Your task to perform on an android device: Open calendar and show me the fourth week of next month Image 0: 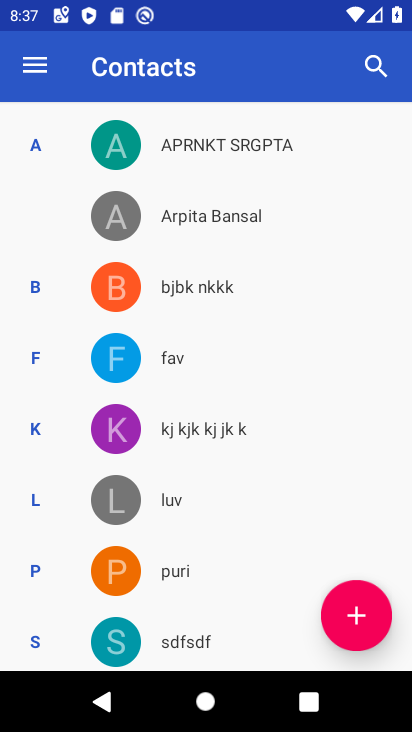
Step 0: press home button
Your task to perform on an android device: Open calendar and show me the fourth week of next month Image 1: 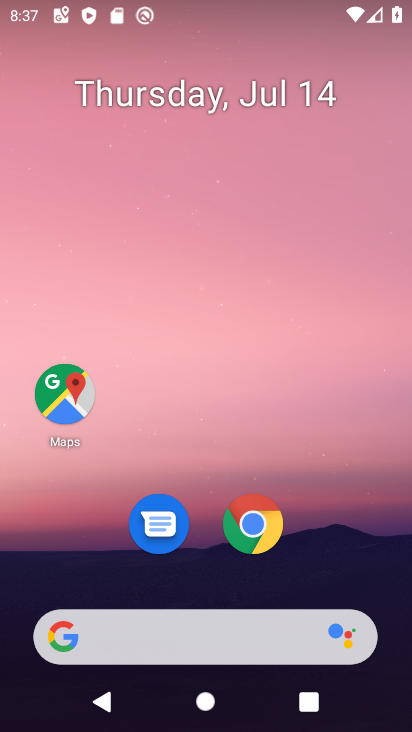
Step 1: drag from (329, 529) to (304, 71)
Your task to perform on an android device: Open calendar and show me the fourth week of next month Image 2: 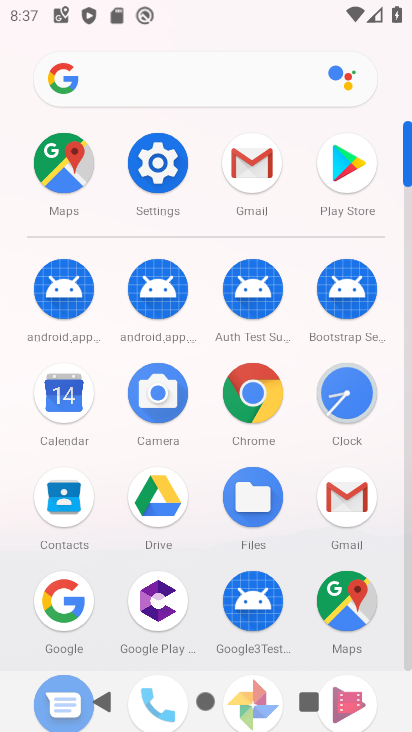
Step 2: click (75, 393)
Your task to perform on an android device: Open calendar and show me the fourth week of next month Image 3: 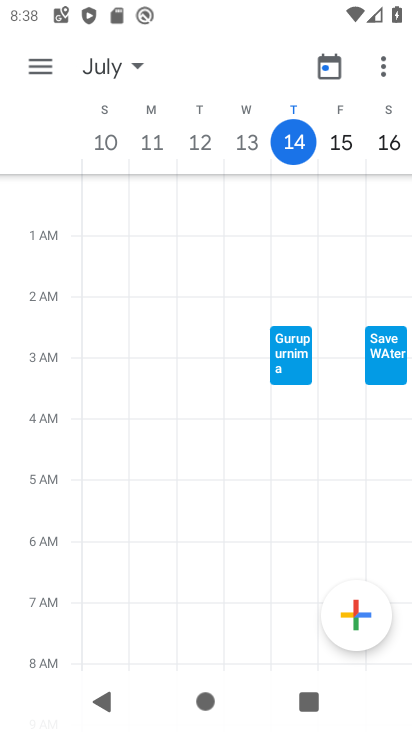
Step 3: task complete